Your task to perform on an android device: Toggle the flashlight Image 0: 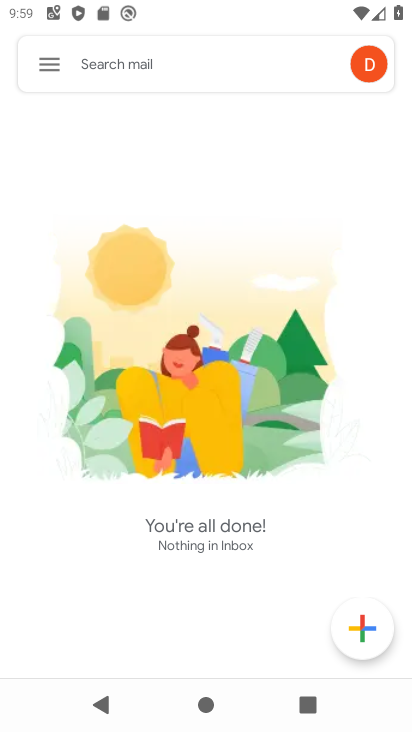
Step 0: press back button
Your task to perform on an android device: Toggle the flashlight Image 1: 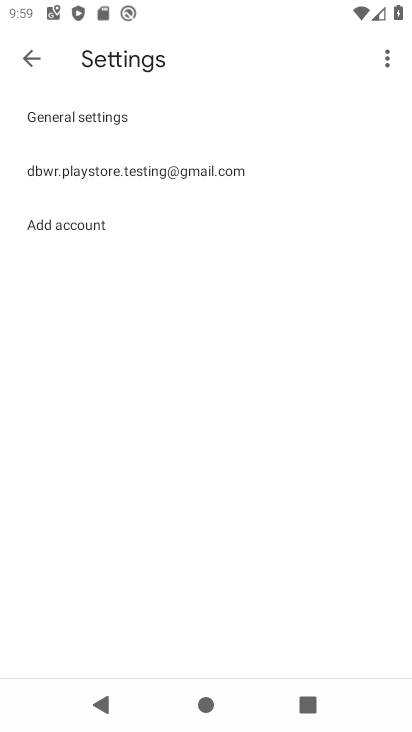
Step 1: press back button
Your task to perform on an android device: Toggle the flashlight Image 2: 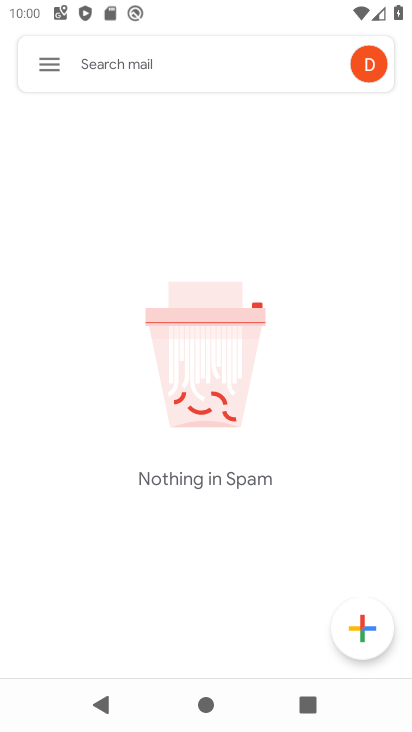
Step 2: press back button
Your task to perform on an android device: Toggle the flashlight Image 3: 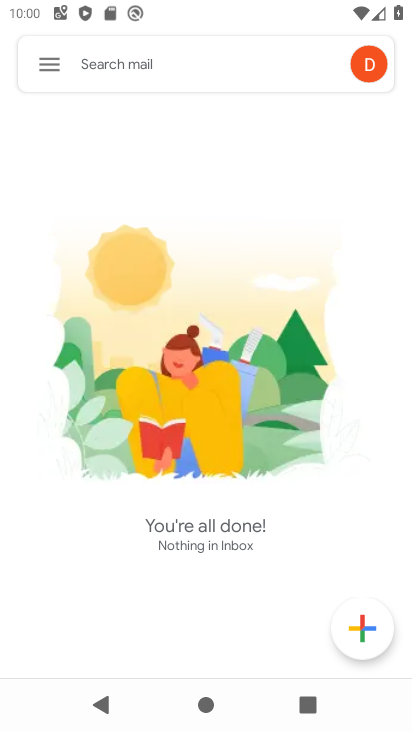
Step 3: press back button
Your task to perform on an android device: Toggle the flashlight Image 4: 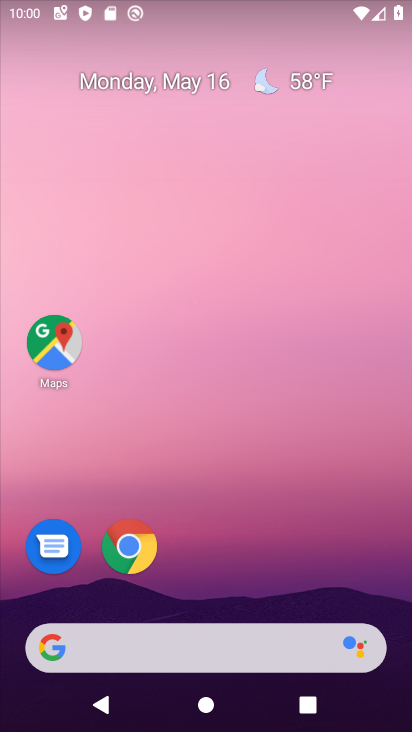
Step 4: drag from (236, 565) to (177, 240)
Your task to perform on an android device: Toggle the flashlight Image 5: 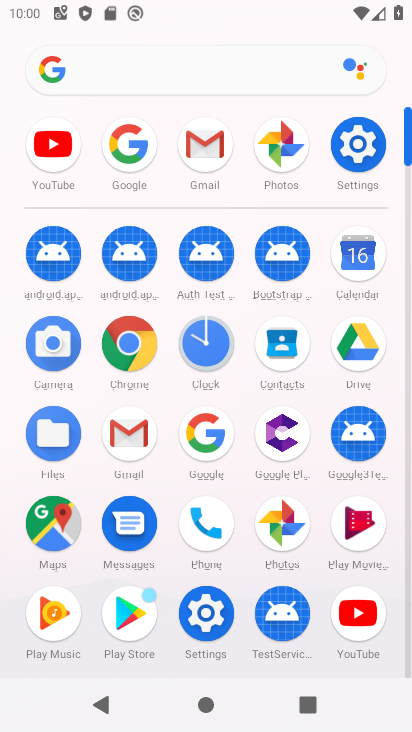
Step 5: click (359, 144)
Your task to perform on an android device: Toggle the flashlight Image 6: 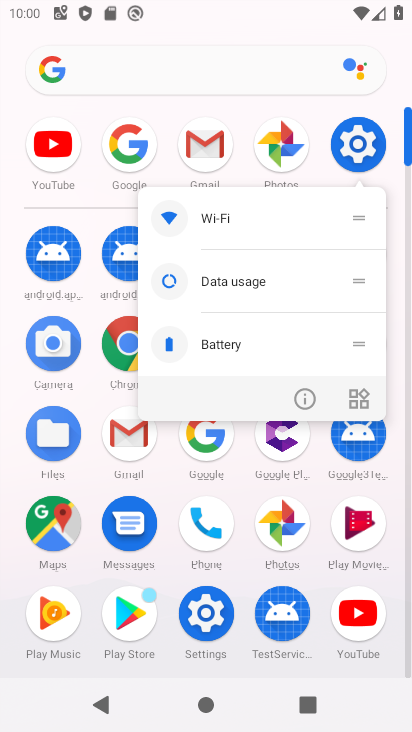
Step 6: click (354, 145)
Your task to perform on an android device: Toggle the flashlight Image 7: 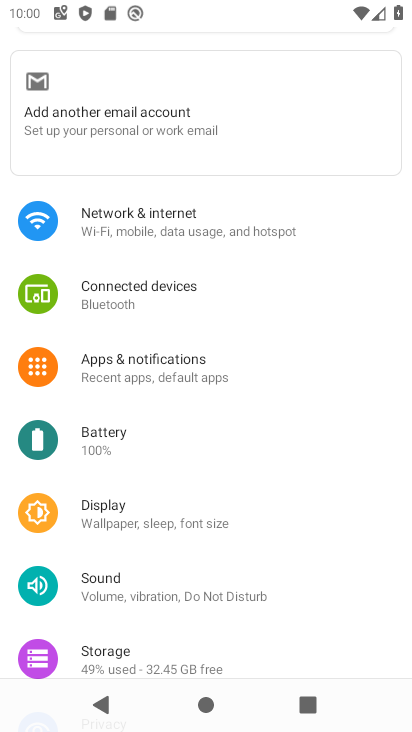
Step 7: click (123, 519)
Your task to perform on an android device: Toggle the flashlight Image 8: 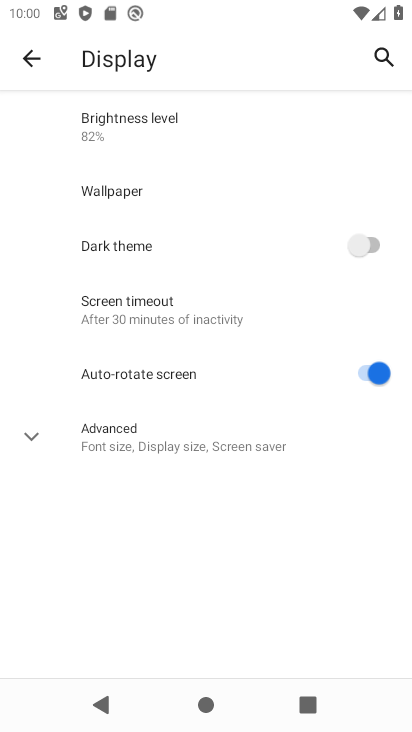
Step 8: click (150, 466)
Your task to perform on an android device: Toggle the flashlight Image 9: 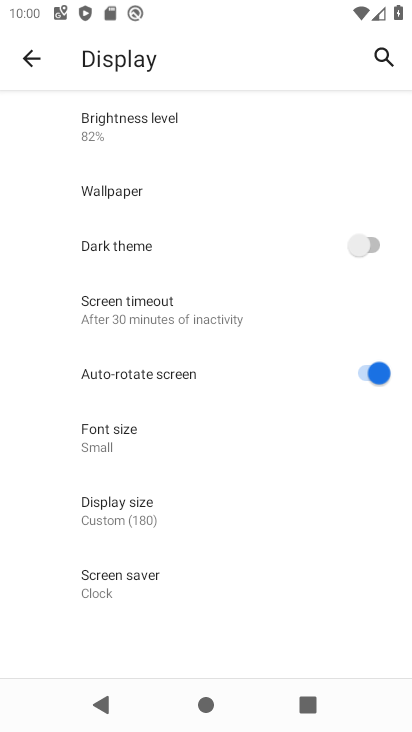
Step 9: task complete